Your task to perform on an android device: Open Google Chrome and open the bookmarks view Image 0: 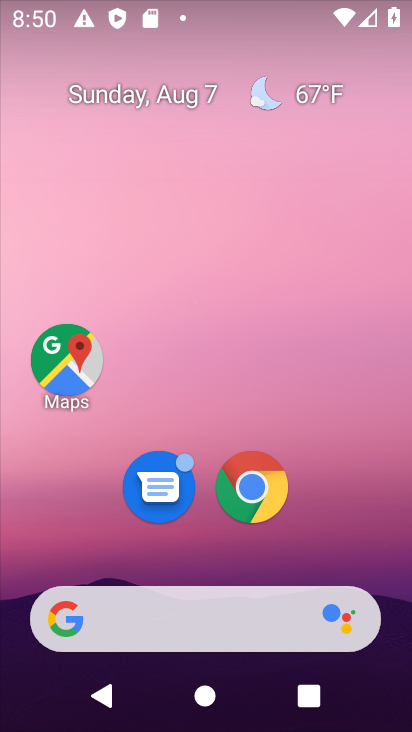
Step 0: click (246, 481)
Your task to perform on an android device: Open Google Chrome and open the bookmarks view Image 1: 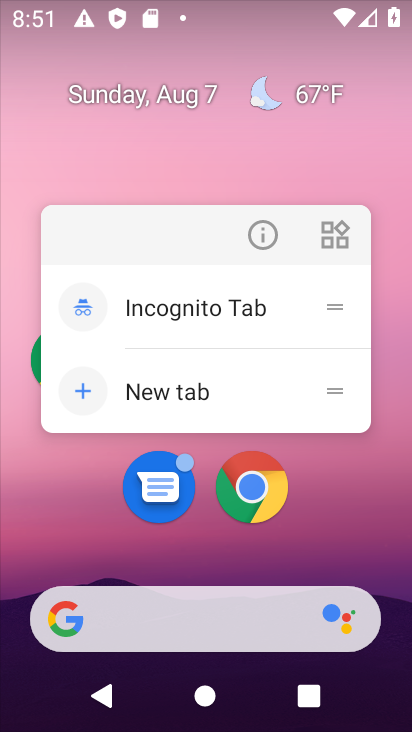
Step 1: click (255, 474)
Your task to perform on an android device: Open Google Chrome and open the bookmarks view Image 2: 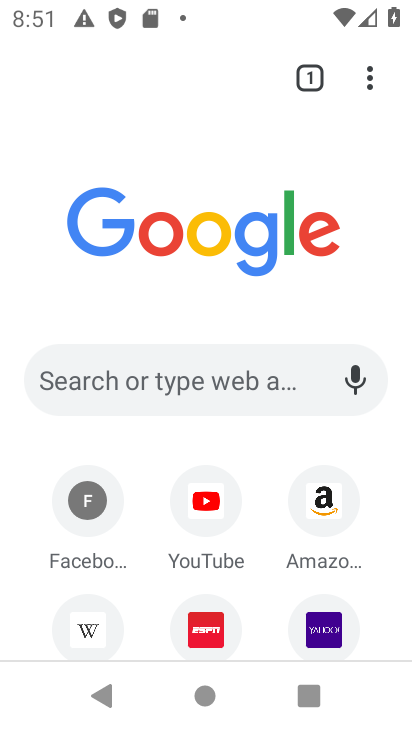
Step 2: click (368, 76)
Your task to perform on an android device: Open Google Chrome and open the bookmarks view Image 3: 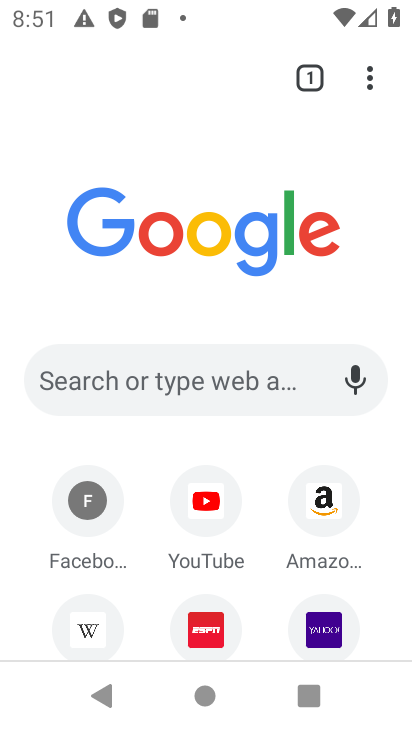
Step 3: click (368, 76)
Your task to perform on an android device: Open Google Chrome and open the bookmarks view Image 4: 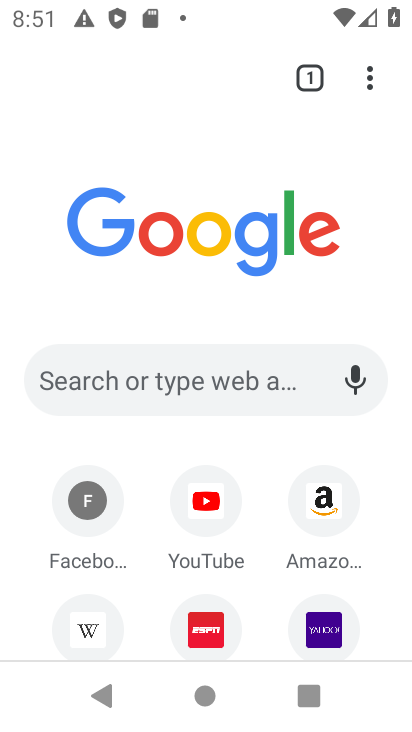
Step 4: click (372, 67)
Your task to perform on an android device: Open Google Chrome and open the bookmarks view Image 5: 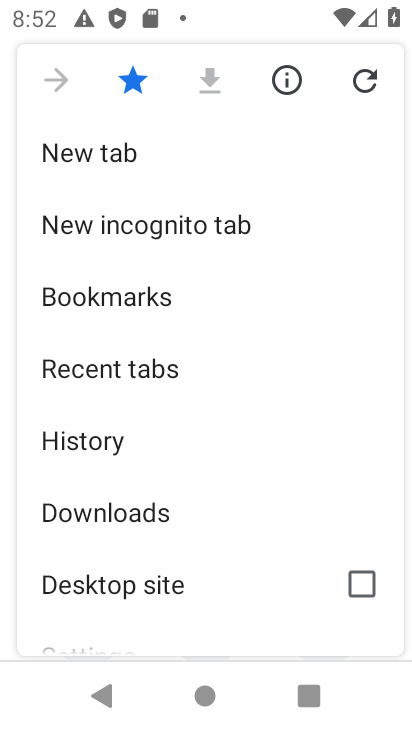
Step 5: click (97, 295)
Your task to perform on an android device: Open Google Chrome and open the bookmarks view Image 6: 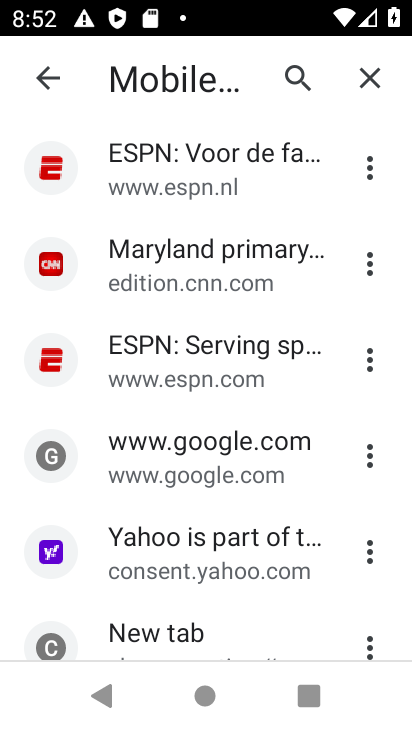
Step 6: task complete